Your task to perform on an android device: all mails in gmail Image 0: 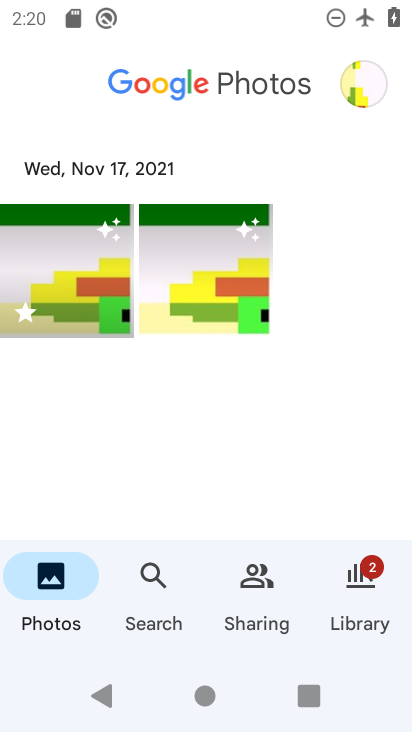
Step 0: press home button
Your task to perform on an android device: all mails in gmail Image 1: 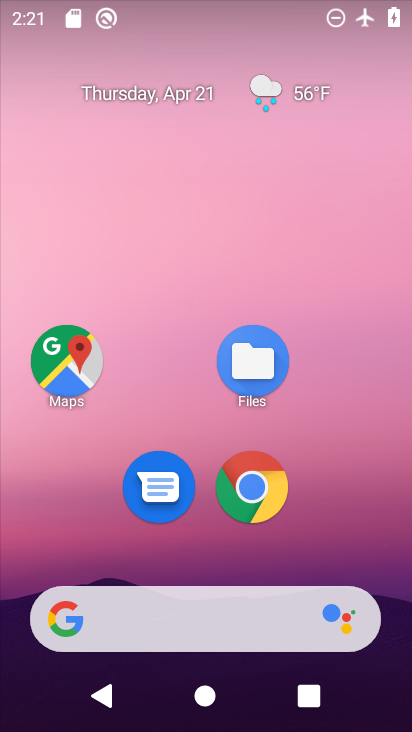
Step 1: drag from (349, 511) to (345, 74)
Your task to perform on an android device: all mails in gmail Image 2: 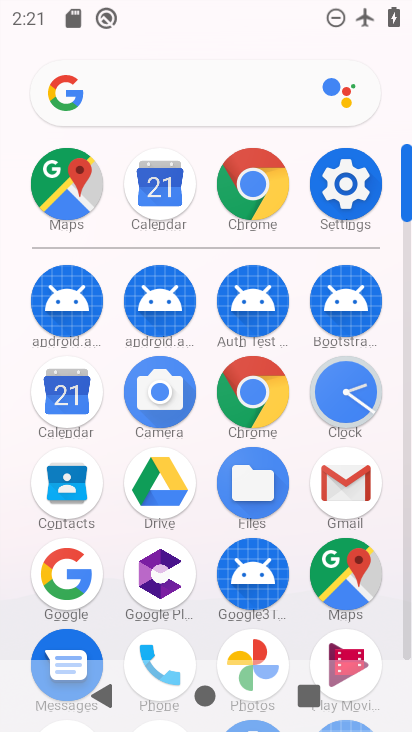
Step 2: click (339, 501)
Your task to perform on an android device: all mails in gmail Image 3: 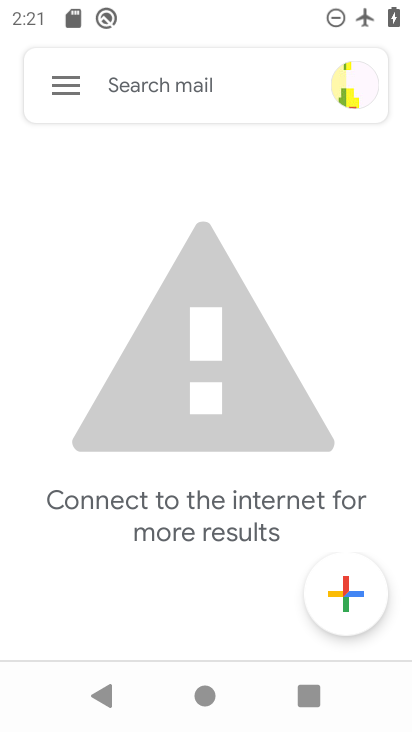
Step 3: task complete